Your task to perform on an android device: Search for good BBQ restaurants Image 0: 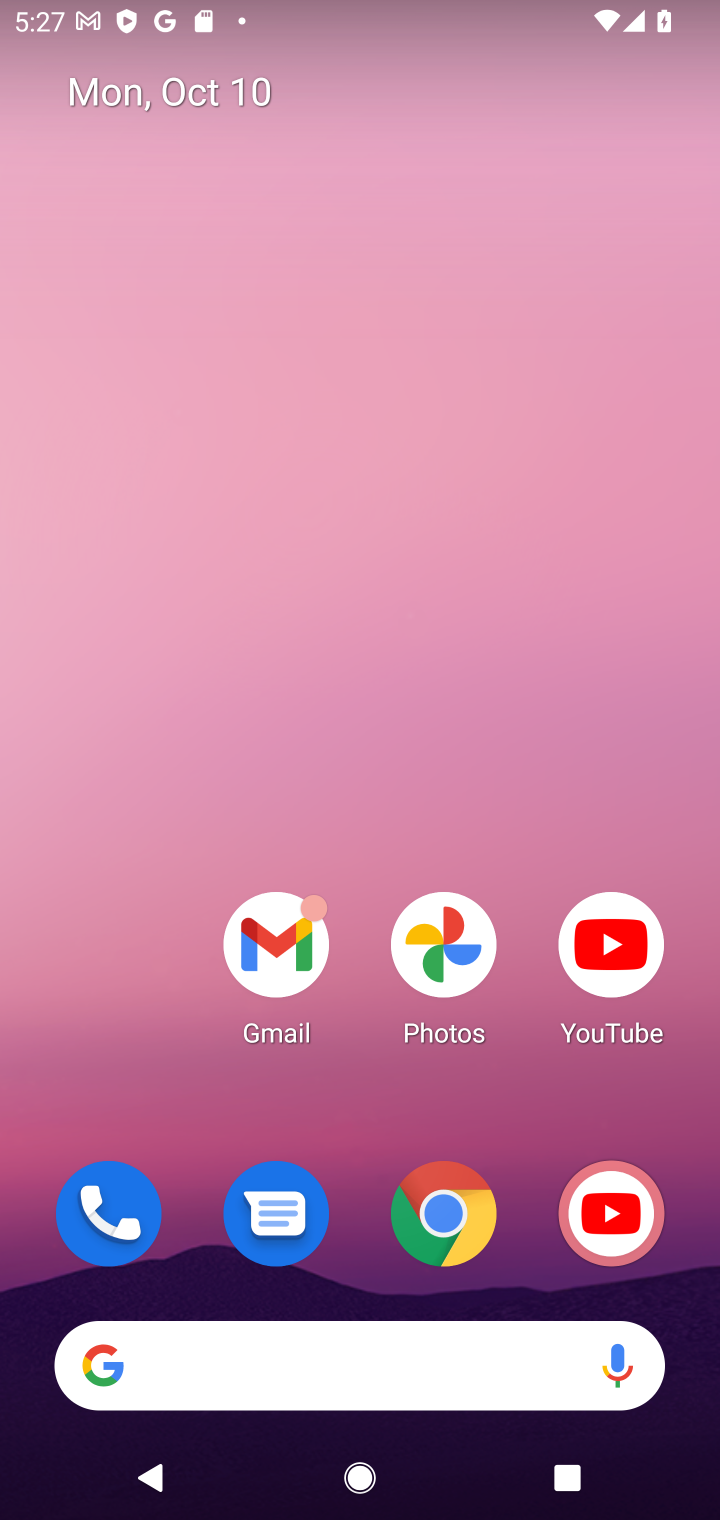
Step 0: click (307, 1379)
Your task to perform on an android device: Search for good BBQ restaurants Image 1: 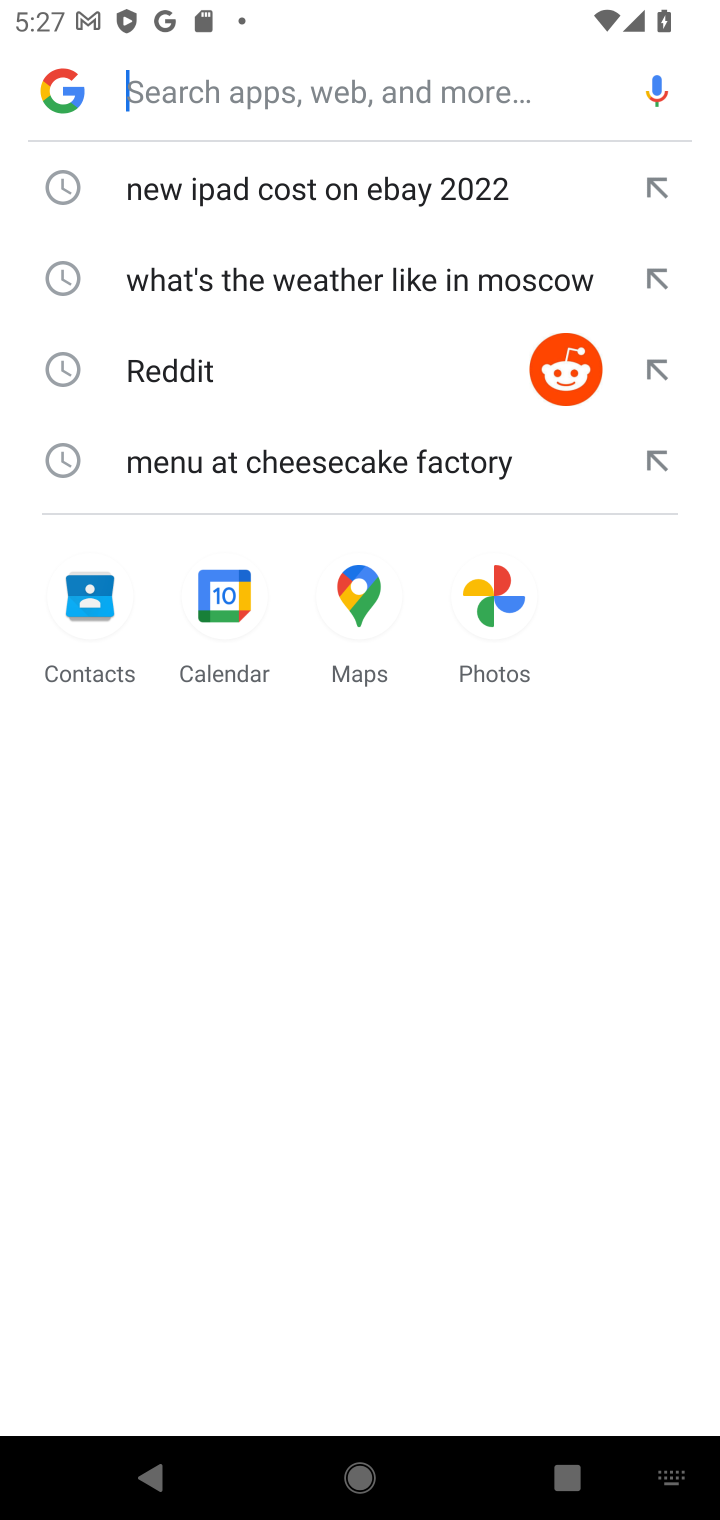
Step 1: type "BBQ restaurants"
Your task to perform on an android device: Search for good BBQ restaurants Image 2: 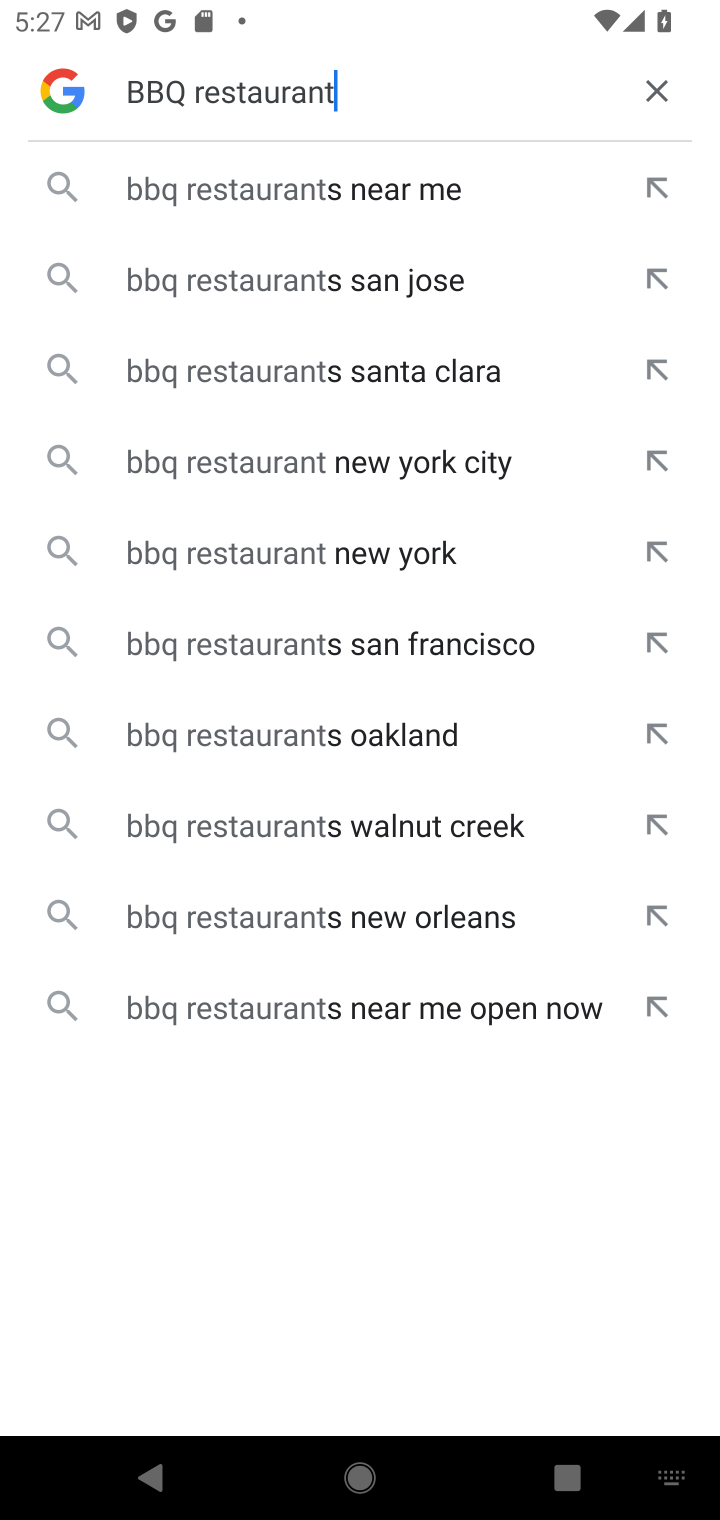
Step 2: type ""
Your task to perform on an android device: Search for good BBQ restaurants Image 3: 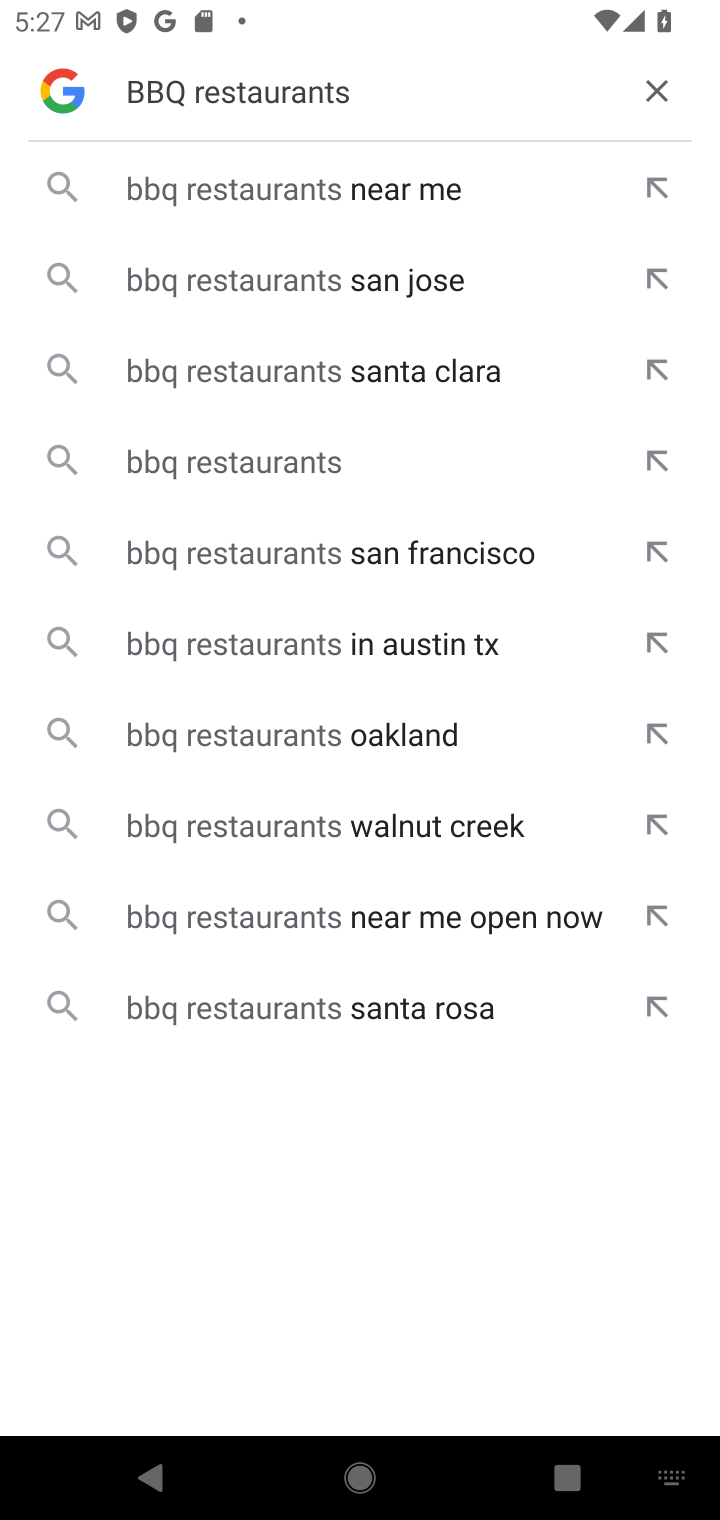
Step 3: click (378, 194)
Your task to perform on an android device: Search for good BBQ restaurants Image 4: 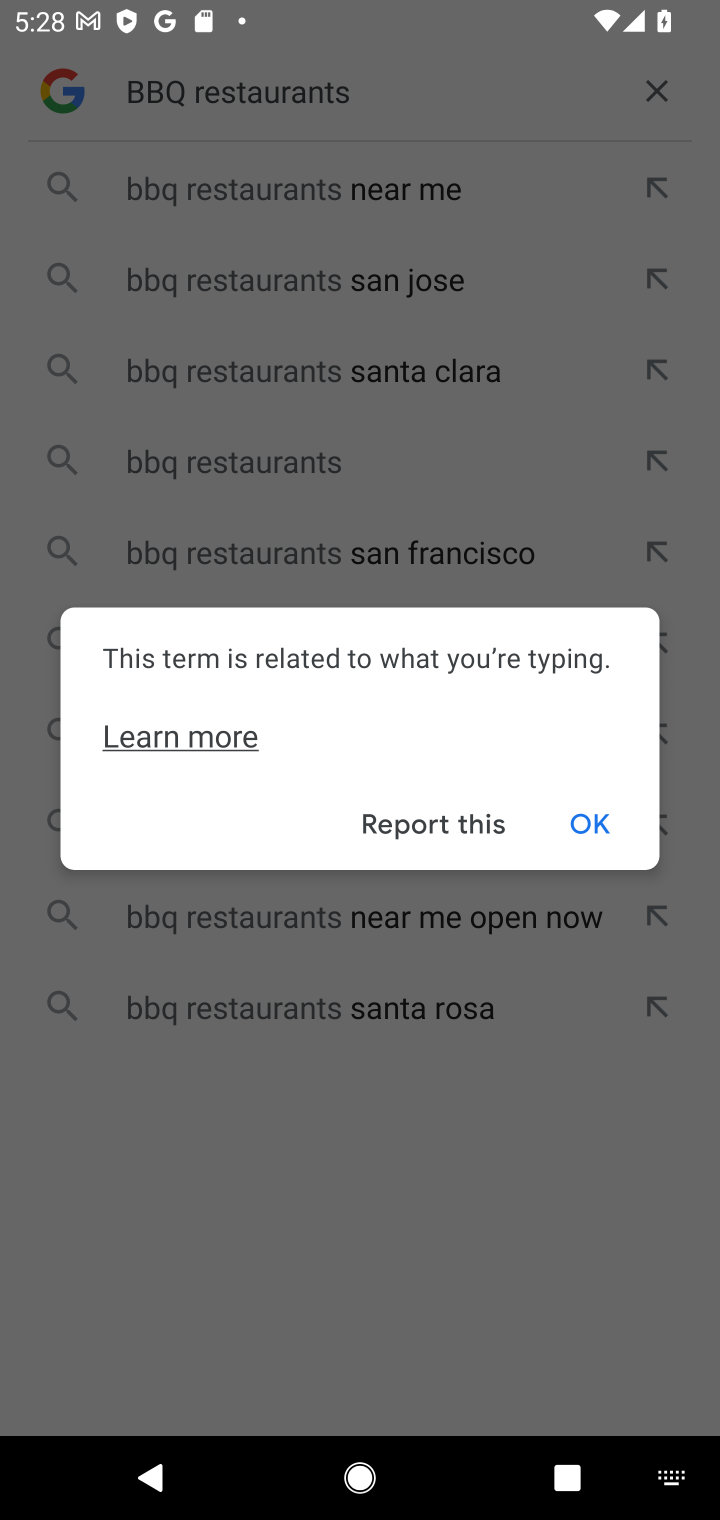
Step 4: click (581, 812)
Your task to perform on an android device: Search for good BBQ restaurants Image 5: 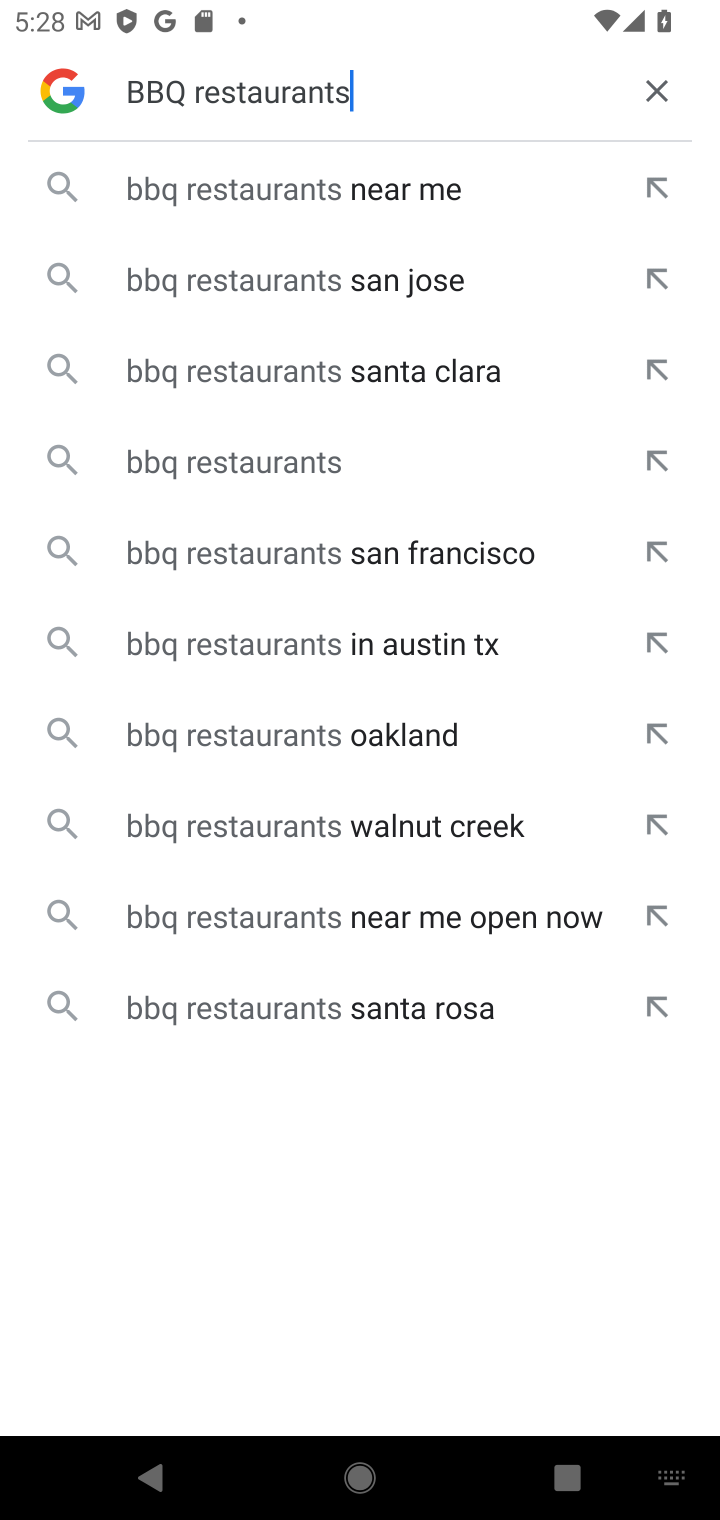
Step 5: click (250, 209)
Your task to perform on an android device: Search for good BBQ restaurants Image 6: 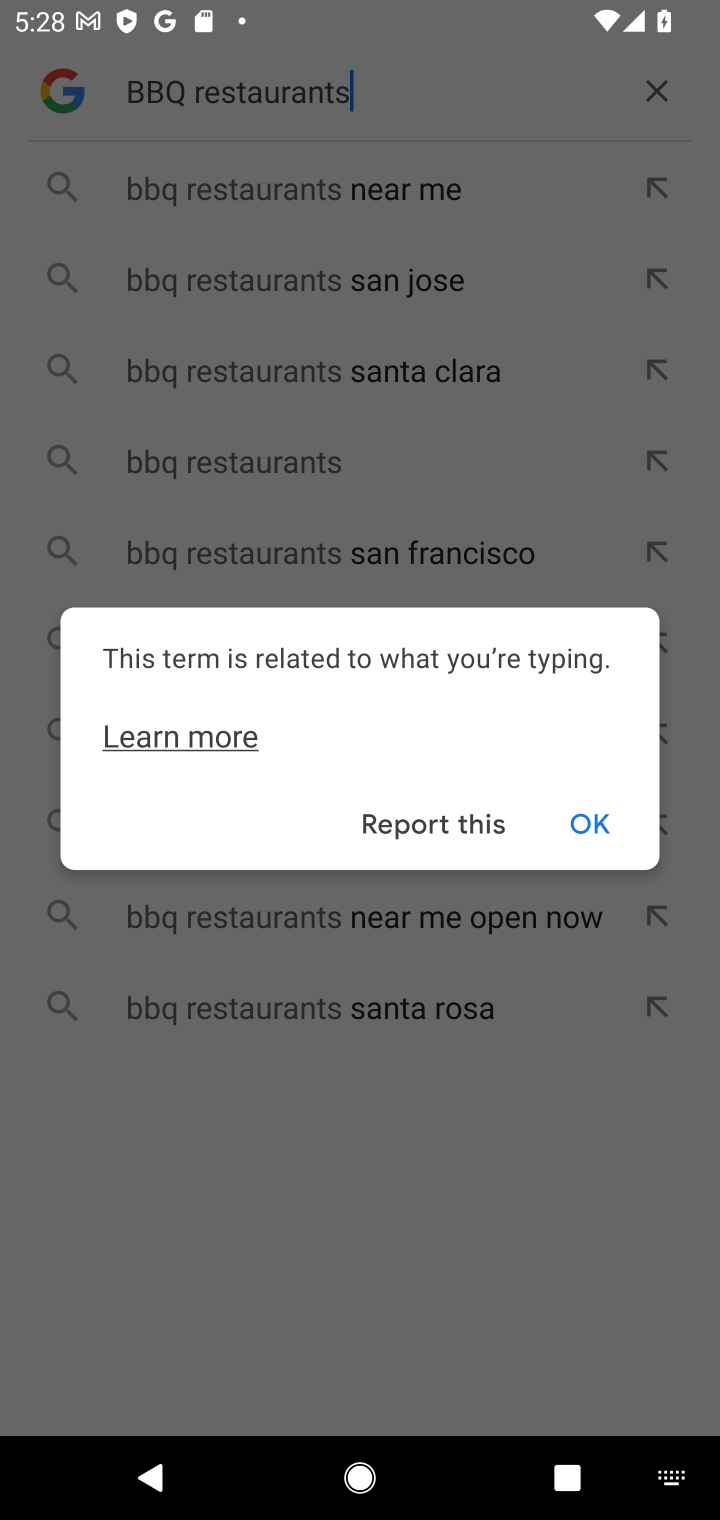
Step 6: click (606, 839)
Your task to perform on an android device: Search for good BBQ restaurants Image 7: 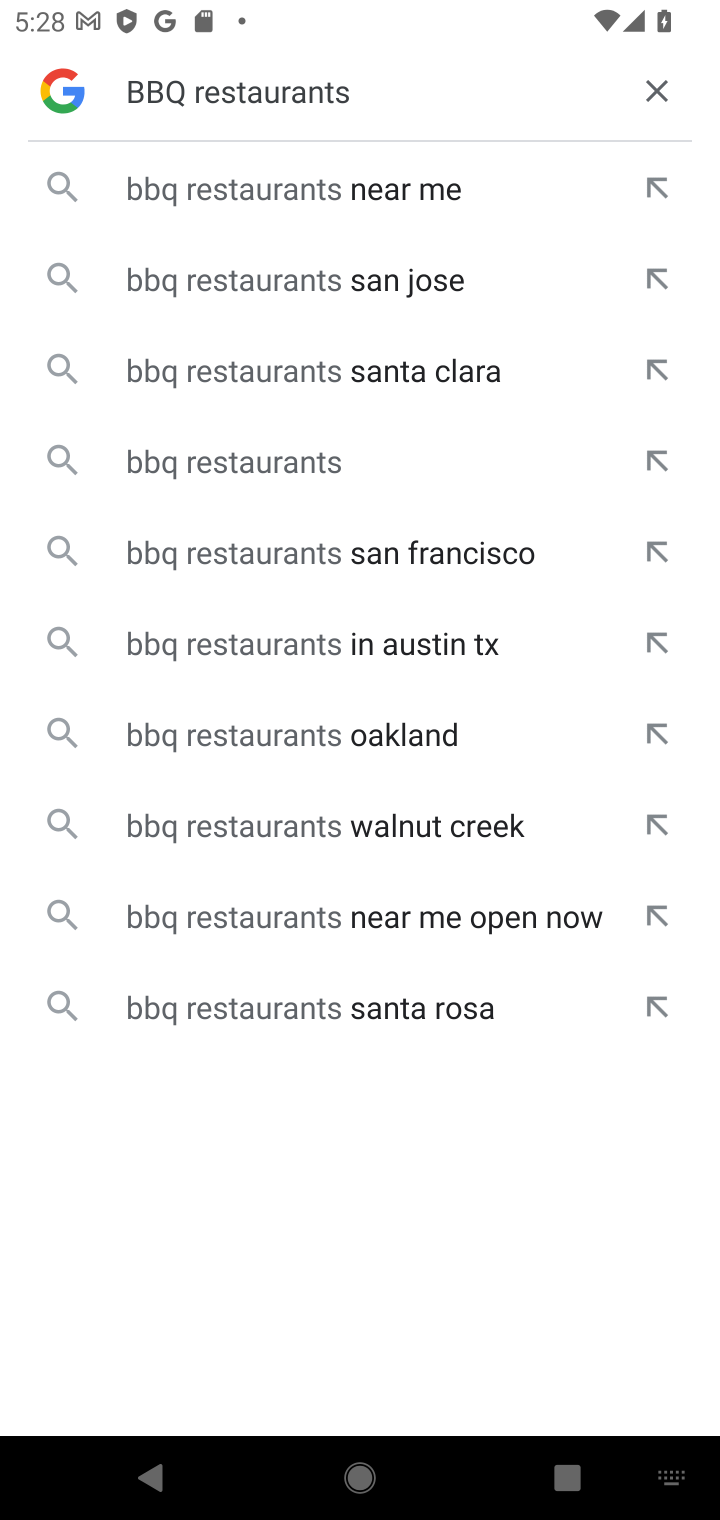
Step 7: click (353, 193)
Your task to perform on an android device: Search for good BBQ restaurants Image 8: 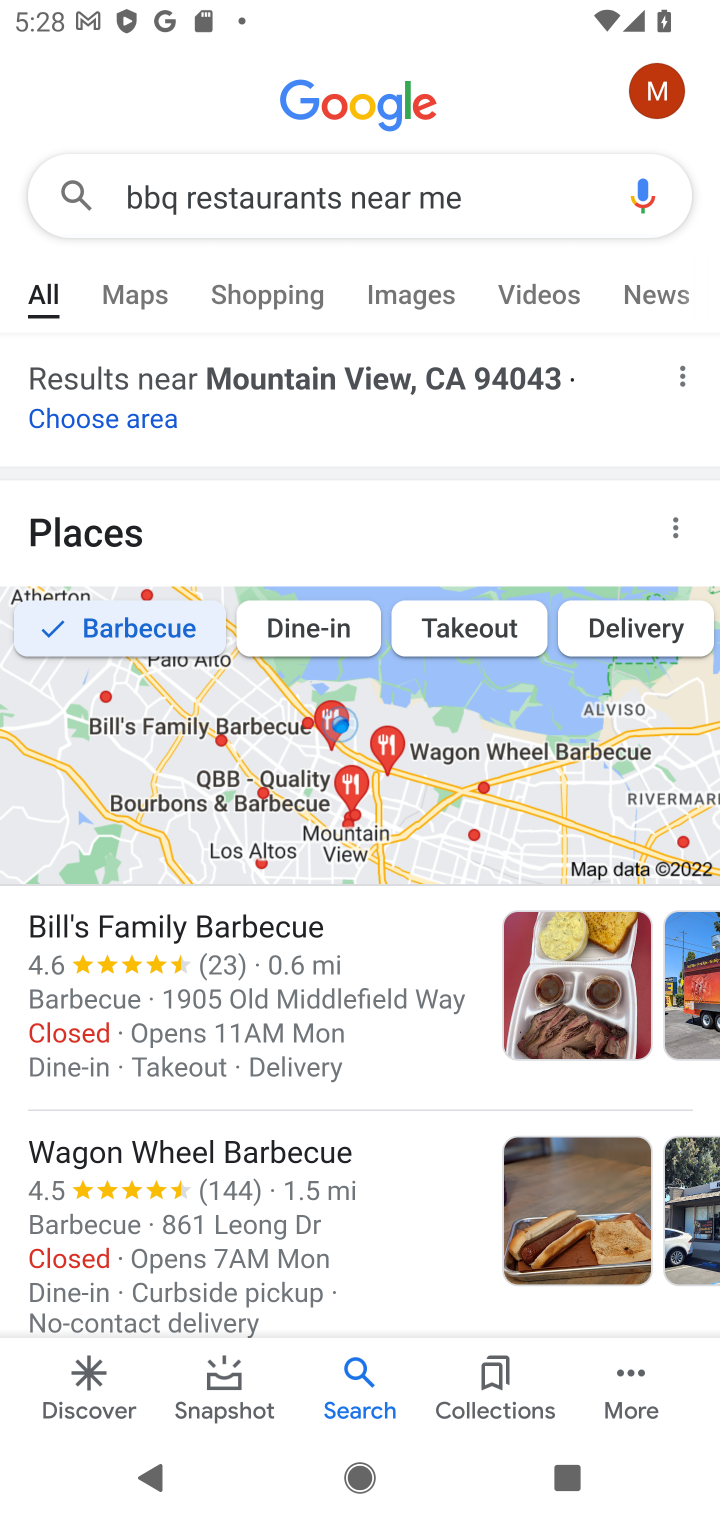
Step 8: task complete